Your task to perform on an android device: add a contact Image 0: 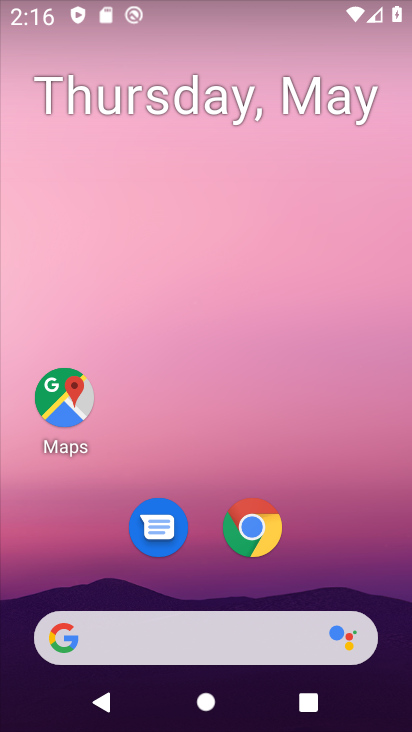
Step 0: drag from (350, 589) to (316, 122)
Your task to perform on an android device: add a contact Image 1: 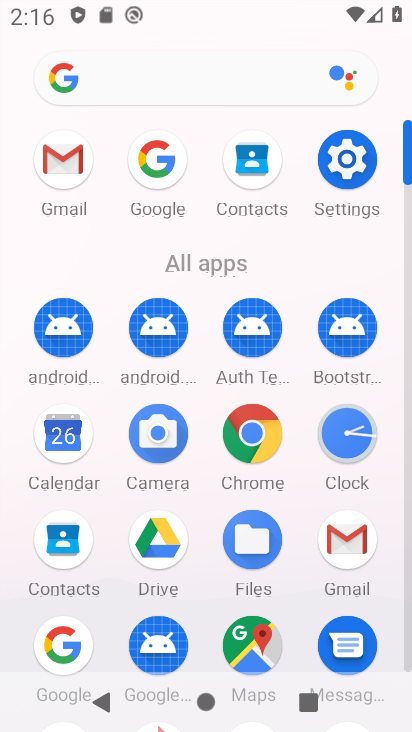
Step 1: click (408, 660)
Your task to perform on an android device: add a contact Image 2: 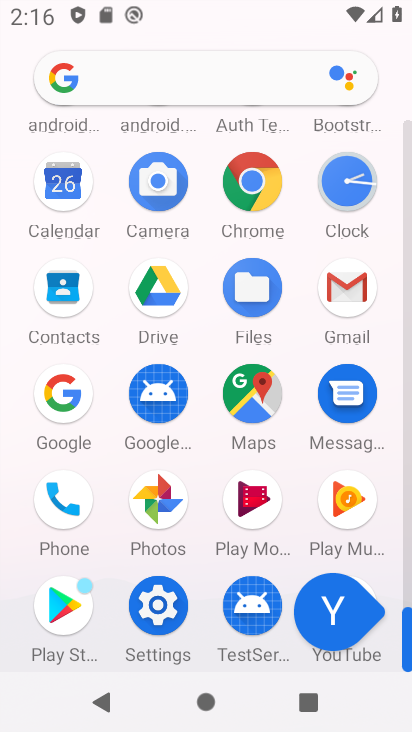
Step 2: click (408, 660)
Your task to perform on an android device: add a contact Image 3: 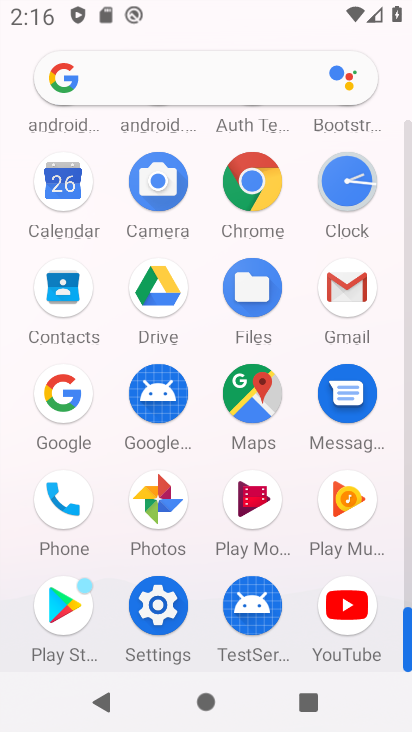
Step 3: click (408, 660)
Your task to perform on an android device: add a contact Image 4: 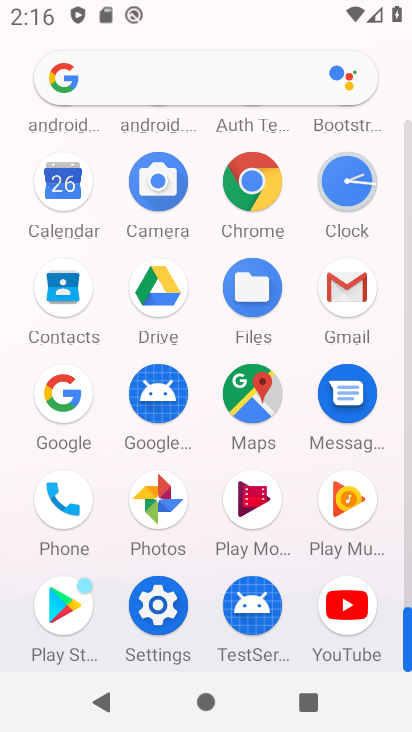
Step 4: click (81, 504)
Your task to perform on an android device: add a contact Image 5: 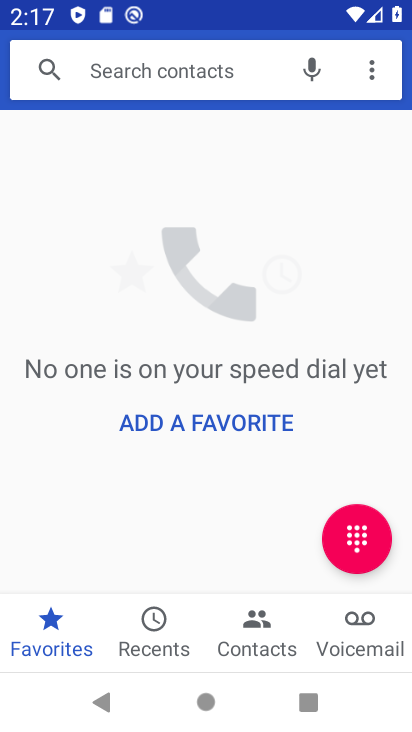
Step 5: press home button
Your task to perform on an android device: add a contact Image 6: 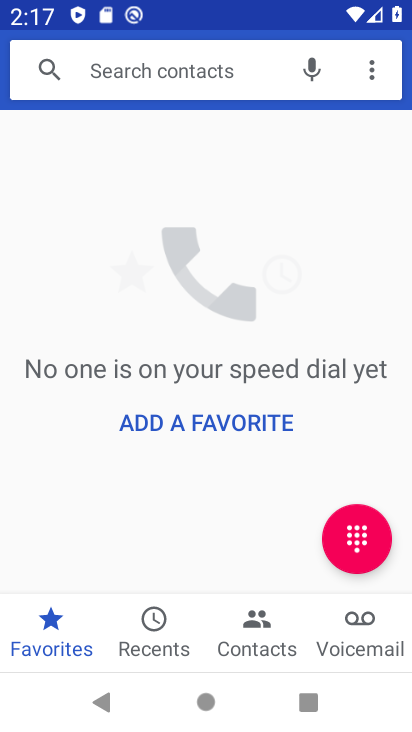
Step 6: press home button
Your task to perform on an android device: add a contact Image 7: 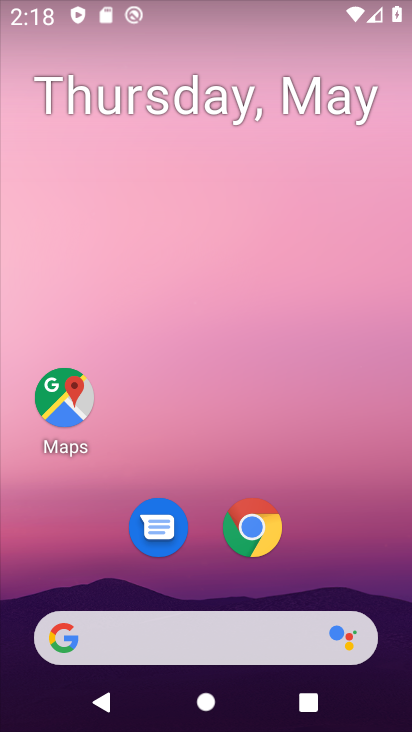
Step 7: drag from (366, 551) to (246, 65)
Your task to perform on an android device: add a contact Image 8: 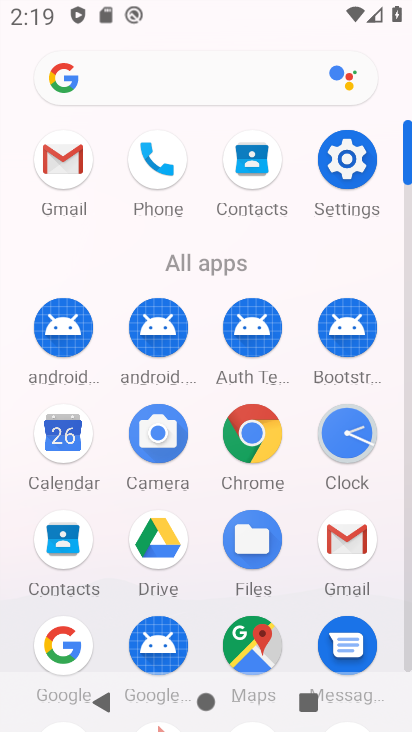
Step 8: click (54, 543)
Your task to perform on an android device: add a contact Image 9: 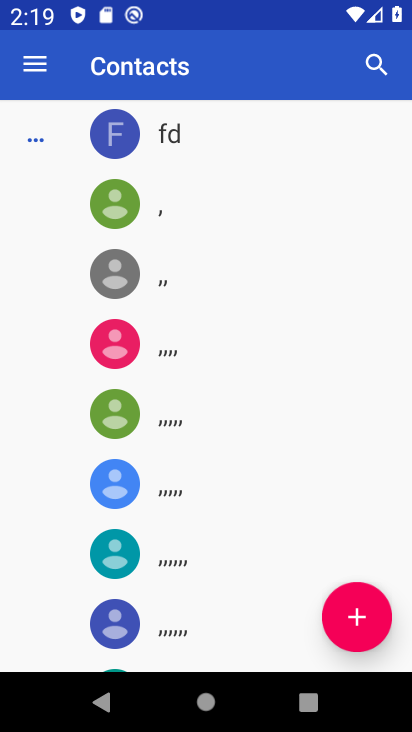
Step 9: click (349, 598)
Your task to perform on an android device: add a contact Image 10: 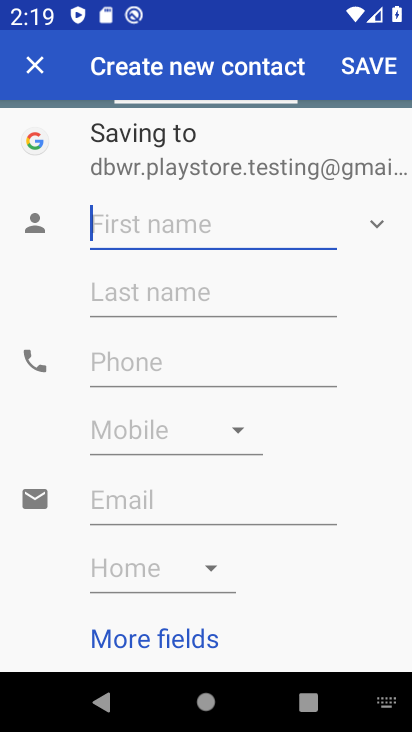
Step 10: type "sdfgh"
Your task to perform on an android device: add a contact Image 11: 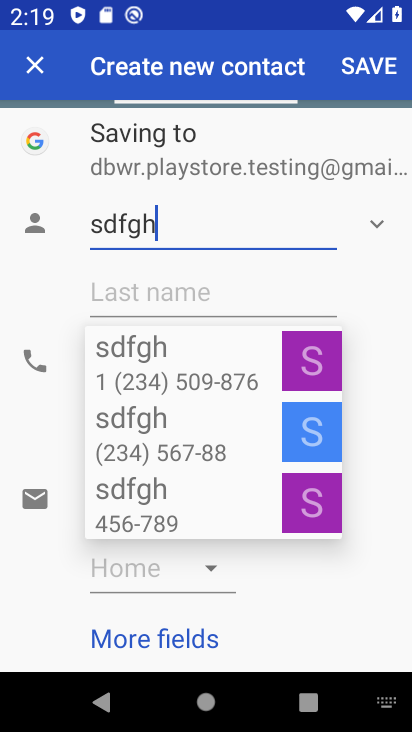
Step 11: click (296, 381)
Your task to perform on an android device: add a contact Image 12: 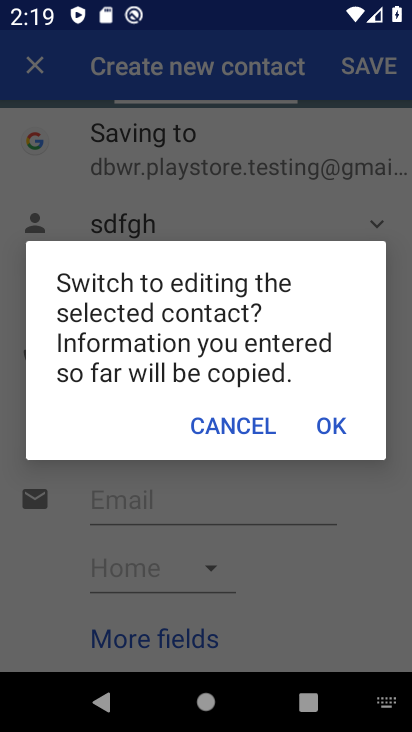
Step 12: click (249, 425)
Your task to perform on an android device: add a contact Image 13: 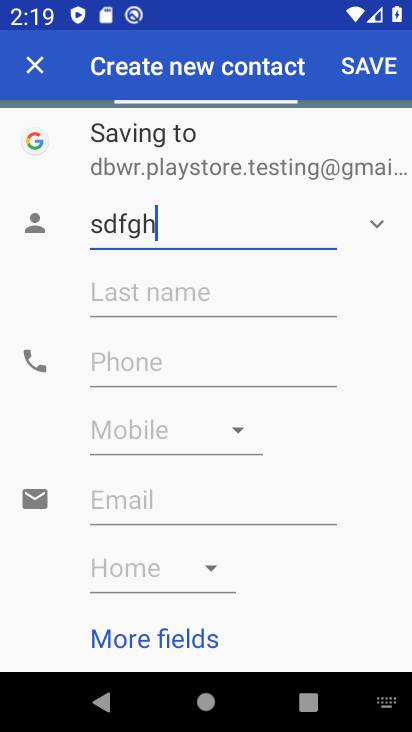
Step 13: click (243, 355)
Your task to perform on an android device: add a contact Image 14: 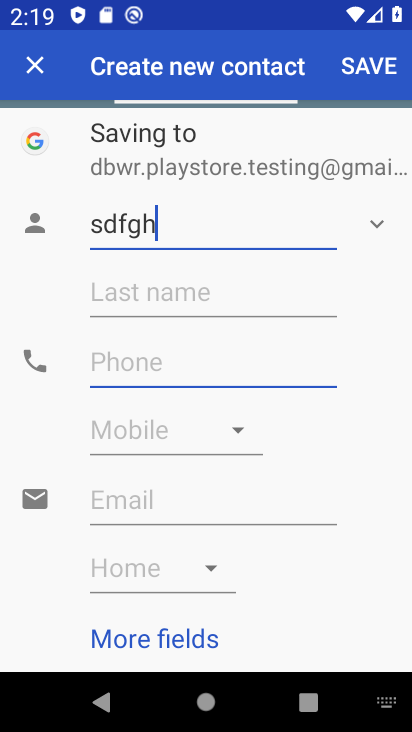
Step 14: click (243, 355)
Your task to perform on an android device: add a contact Image 15: 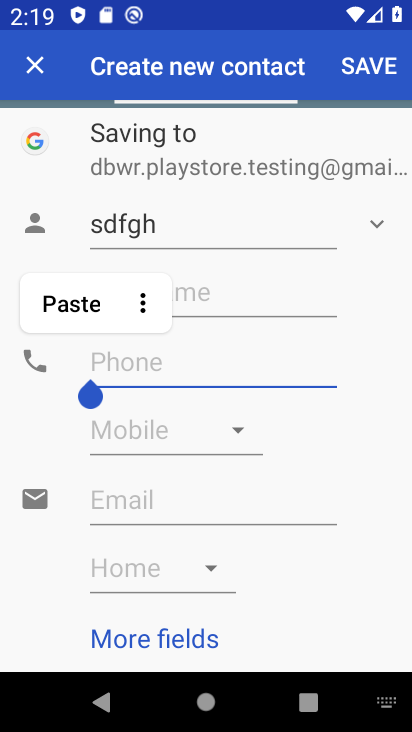
Step 15: type "45678"
Your task to perform on an android device: add a contact Image 16: 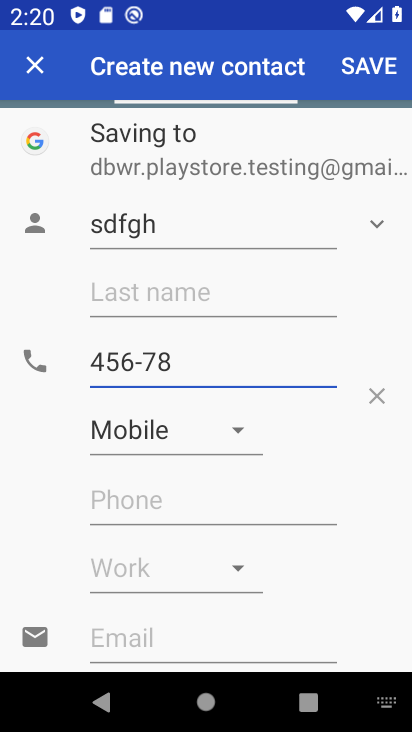
Step 16: click (342, 73)
Your task to perform on an android device: add a contact Image 17: 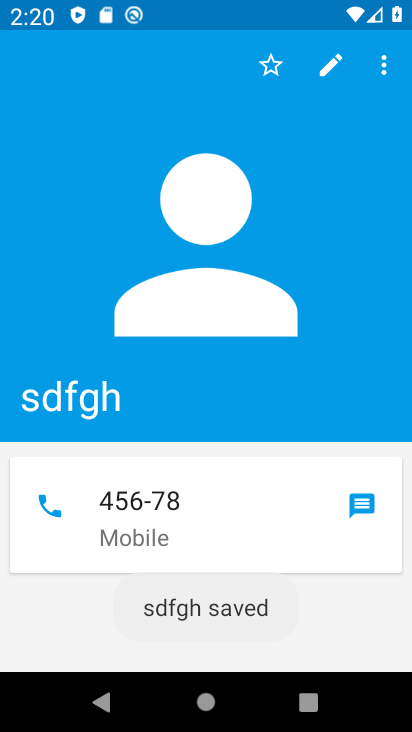
Step 17: task complete